Your task to perform on an android device: turn on notifications settings in the gmail app Image 0: 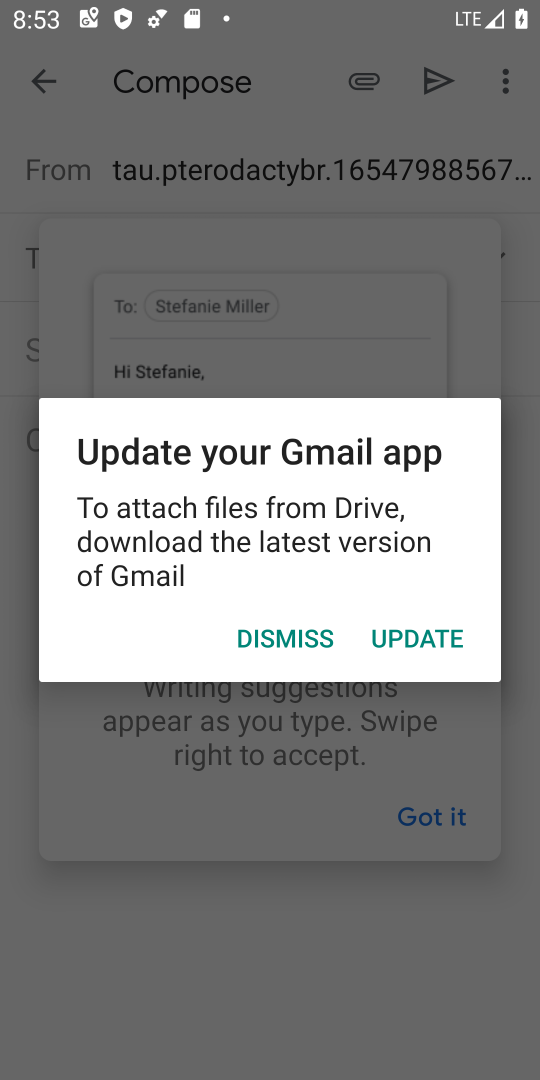
Step 0: press home button
Your task to perform on an android device: turn on notifications settings in the gmail app Image 1: 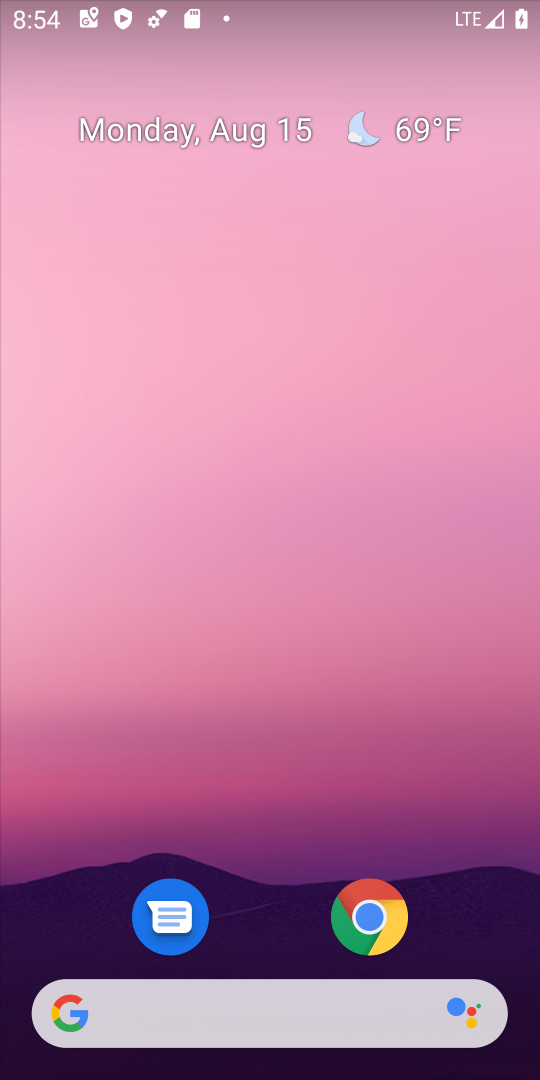
Step 1: drag from (264, 830) to (360, 0)
Your task to perform on an android device: turn on notifications settings in the gmail app Image 2: 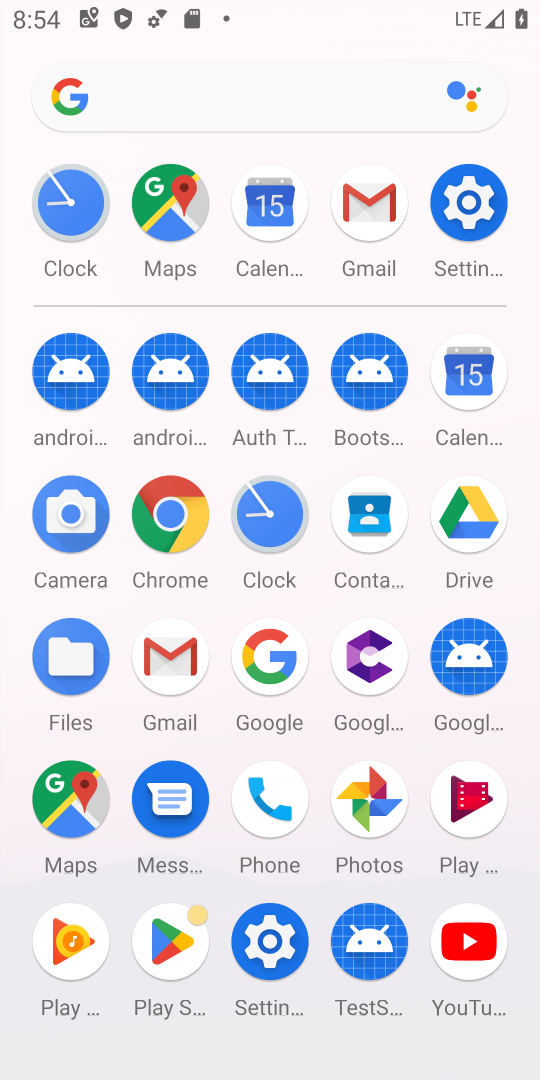
Step 2: click (369, 207)
Your task to perform on an android device: turn on notifications settings in the gmail app Image 3: 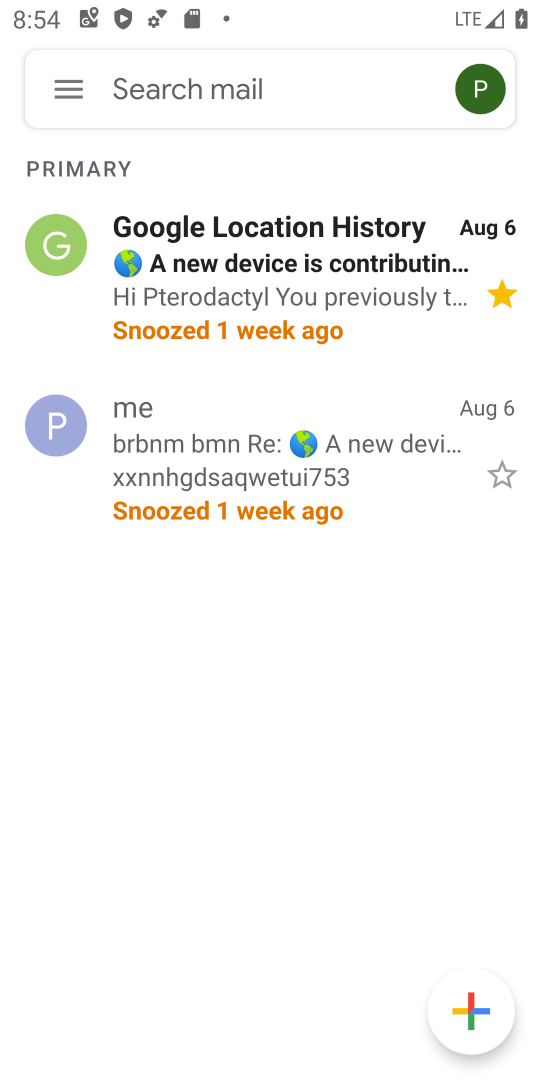
Step 3: click (72, 87)
Your task to perform on an android device: turn on notifications settings in the gmail app Image 4: 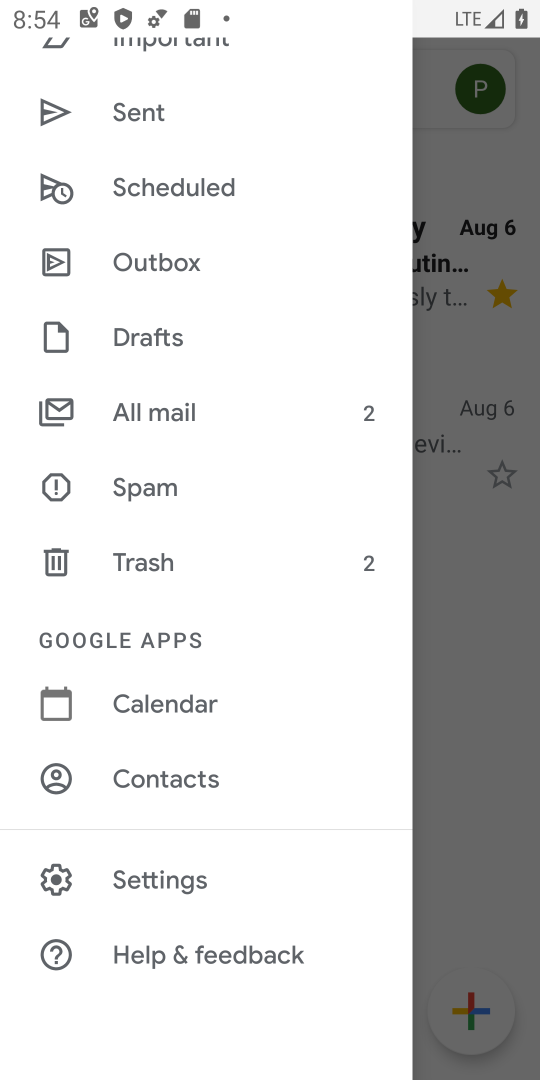
Step 4: click (196, 882)
Your task to perform on an android device: turn on notifications settings in the gmail app Image 5: 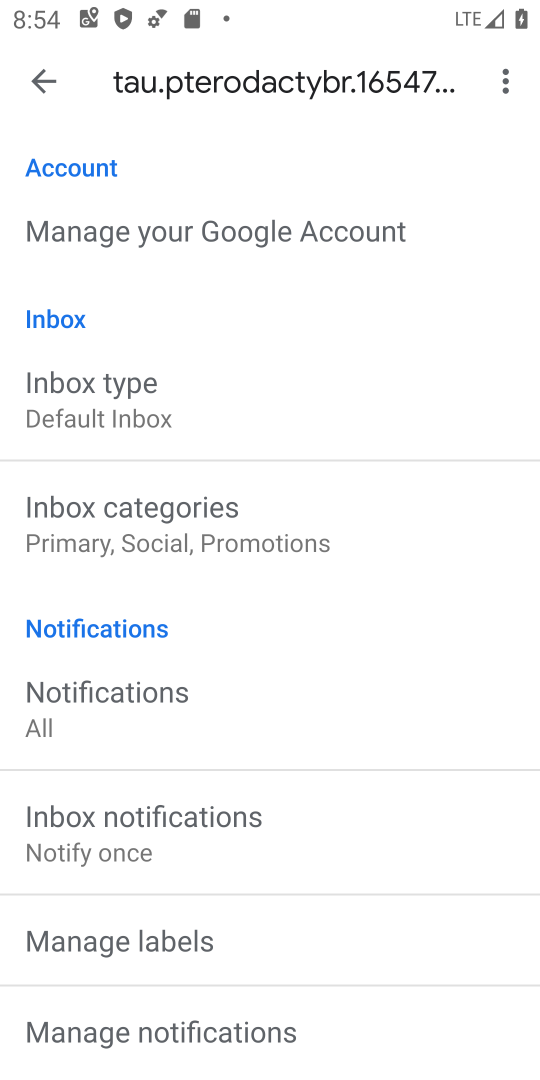
Step 5: click (363, 1041)
Your task to perform on an android device: turn on notifications settings in the gmail app Image 6: 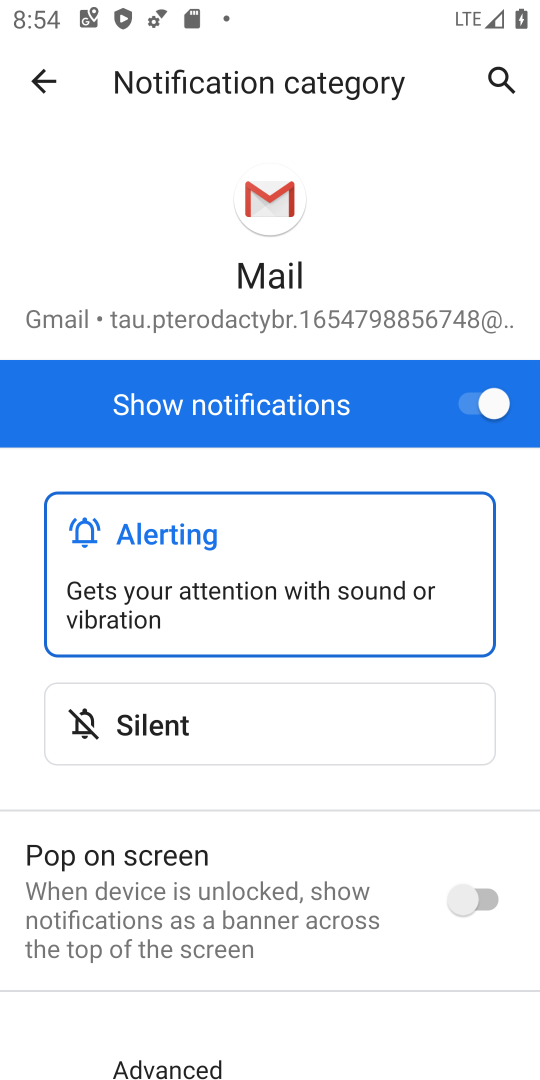
Step 6: task complete